Your task to perform on an android device: refresh tabs in the chrome app Image 0: 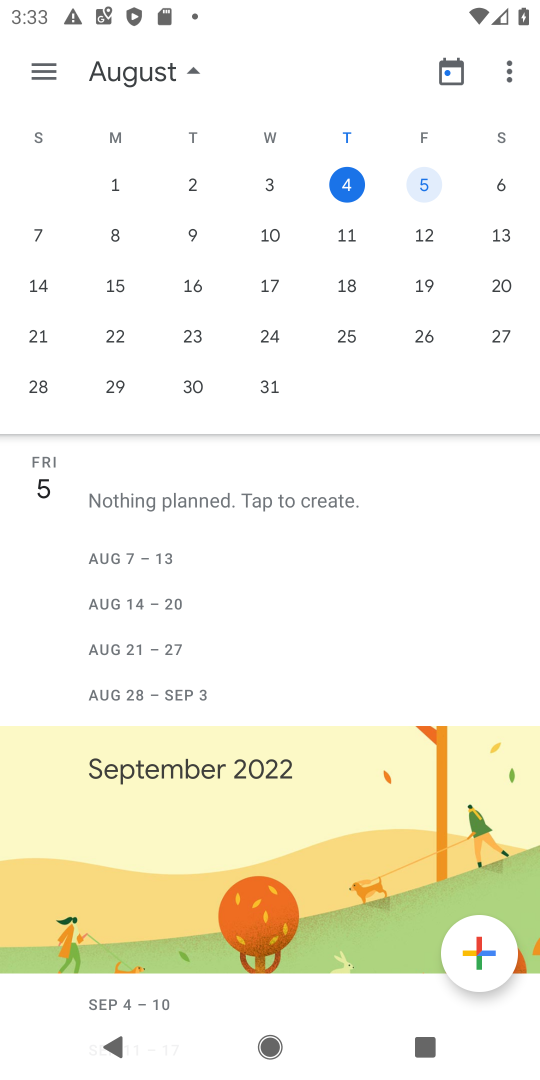
Step 0: press back button
Your task to perform on an android device: refresh tabs in the chrome app Image 1: 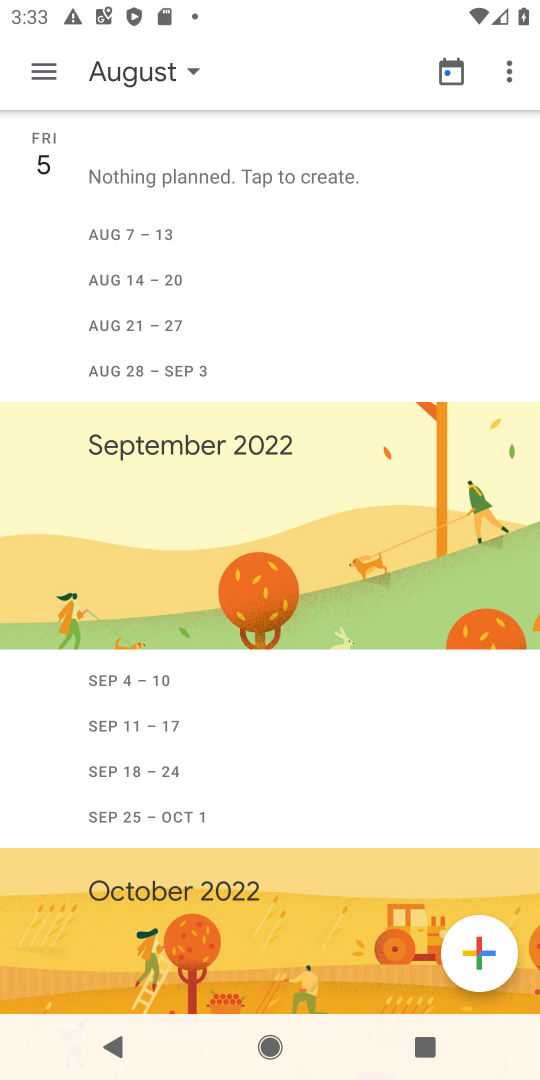
Step 1: press back button
Your task to perform on an android device: refresh tabs in the chrome app Image 2: 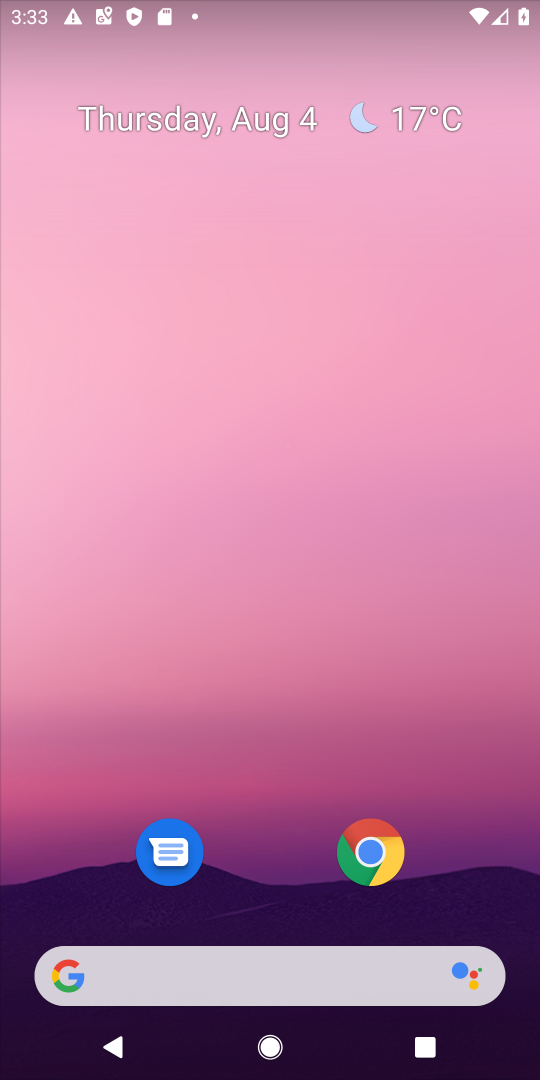
Step 2: click (373, 853)
Your task to perform on an android device: refresh tabs in the chrome app Image 3: 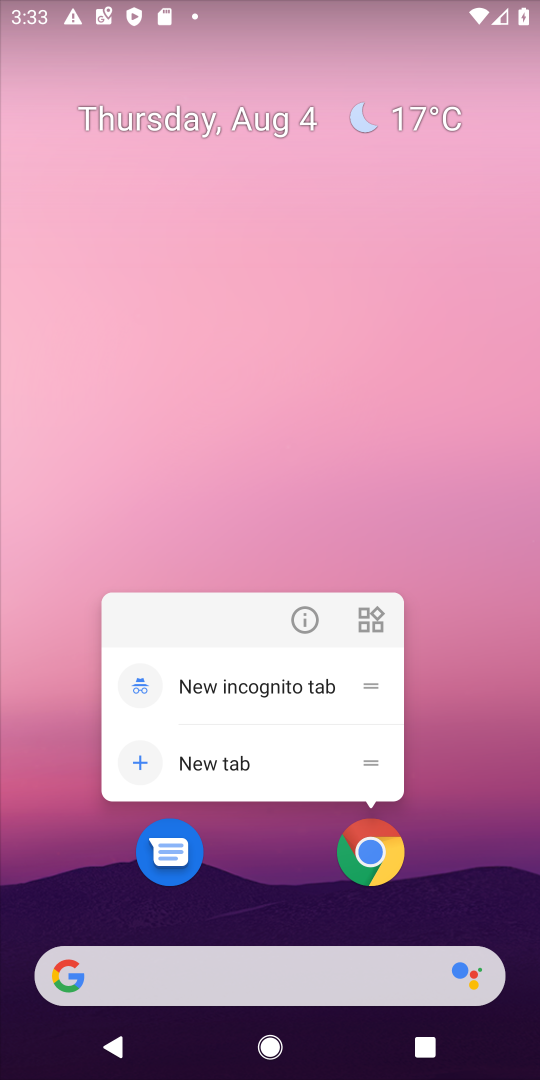
Step 3: click (373, 853)
Your task to perform on an android device: refresh tabs in the chrome app Image 4: 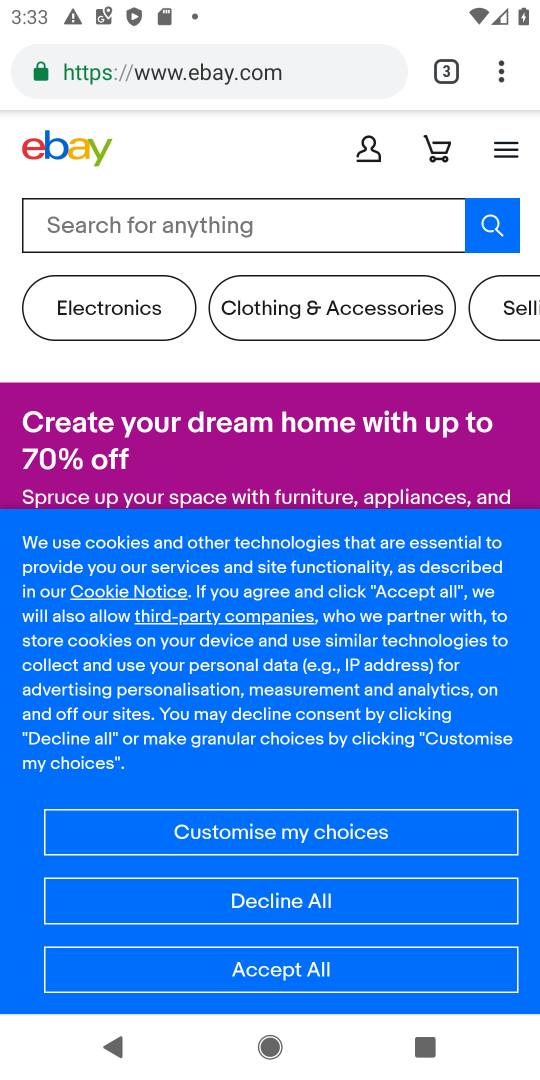
Step 4: click (502, 74)
Your task to perform on an android device: refresh tabs in the chrome app Image 5: 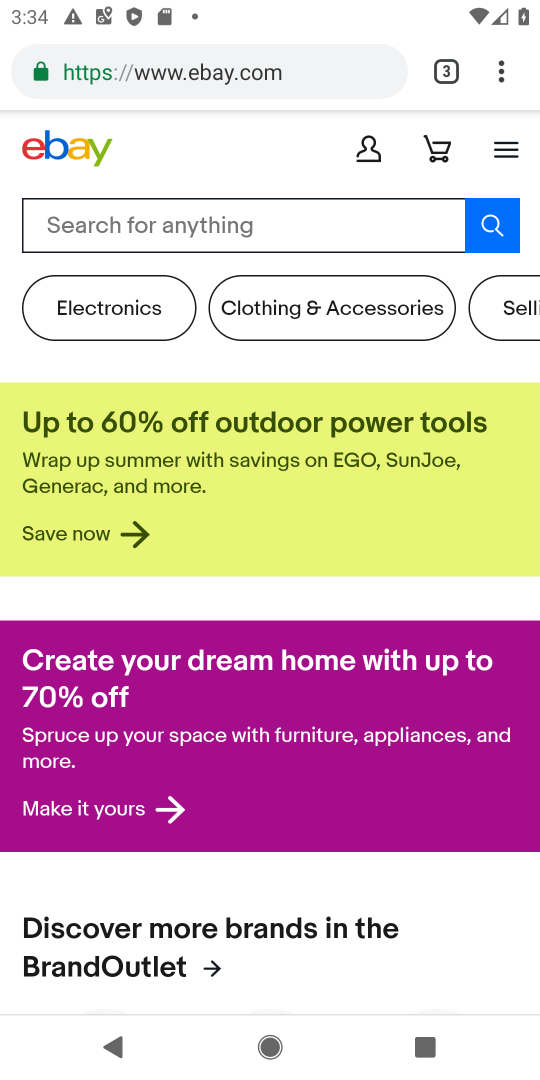
Step 5: task complete